Your task to perform on an android device: Clear the shopping cart on amazon.com. Search for "jbl charge 4" on amazon.com, select the first entry, and add it to the cart. Image 0: 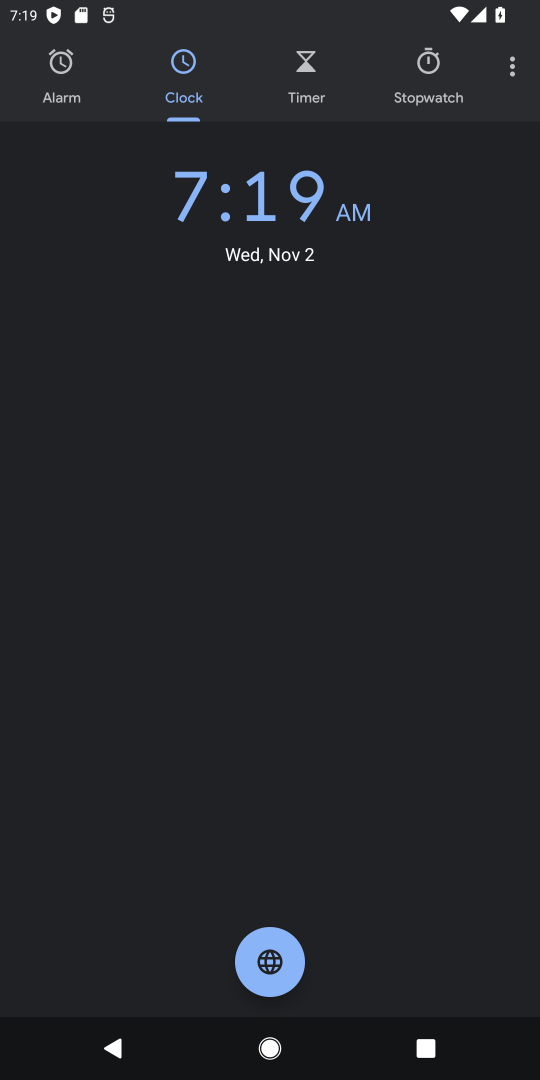
Step 0: press home button
Your task to perform on an android device: Clear the shopping cart on amazon.com. Search for "jbl charge 4" on amazon.com, select the first entry, and add it to the cart. Image 1: 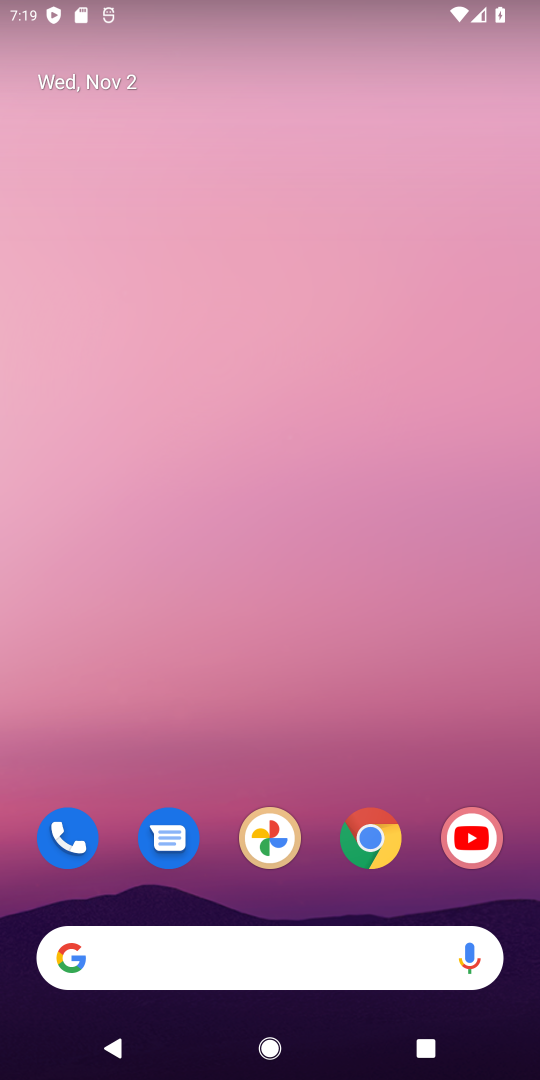
Step 1: click (384, 861)
Your task to perform on an android device: Clear the shopping cart on amazon.com. Search for "jbl charge 4" on amazon.com, select the first entry, and add it to the cart. Image 2: 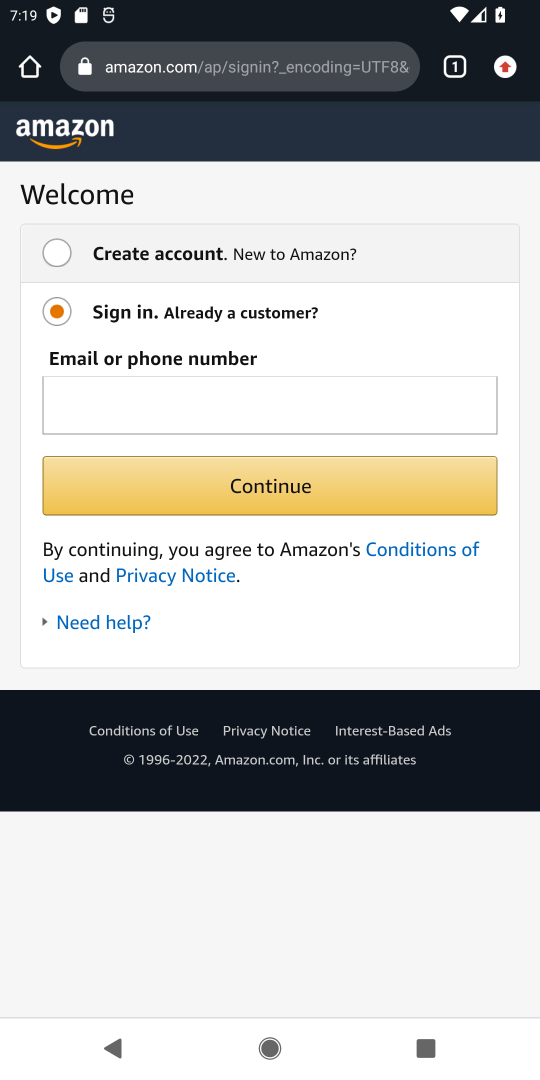
Step 2: click (273, 66)
Your task to perform on an android device: Clear the shopping cart on amazon.com. Search for "jbl charge 4" on amazon.com, select the first entry, and add it to the cart. Image 3: 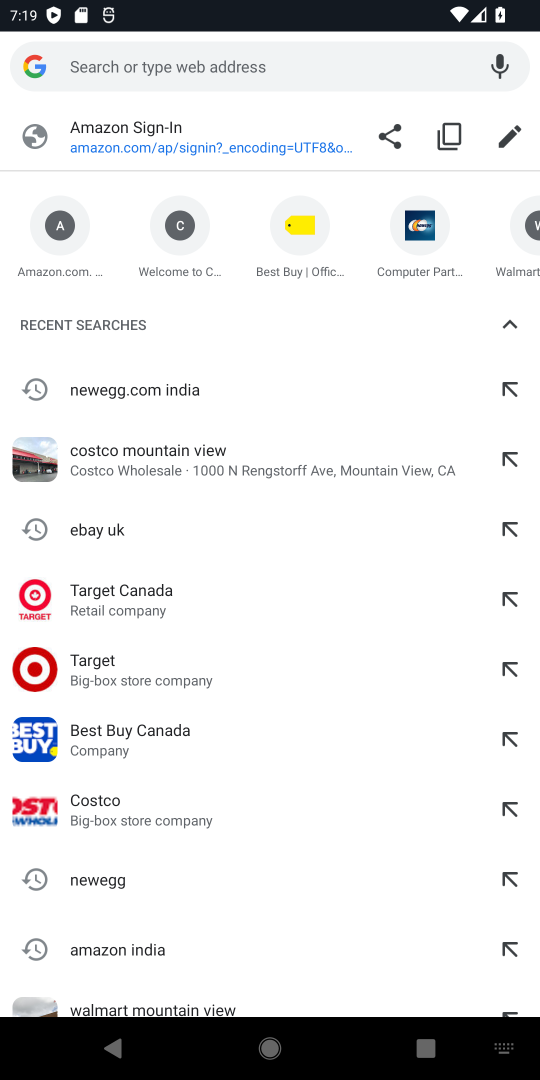
Step 3: type "amazon.com"
Your task to perform on an android device: Clear the shopping cart on amazon.com. Search for "jbl charge 4" on amazon.com, select the first entry, and add it to the cart. Image 4: 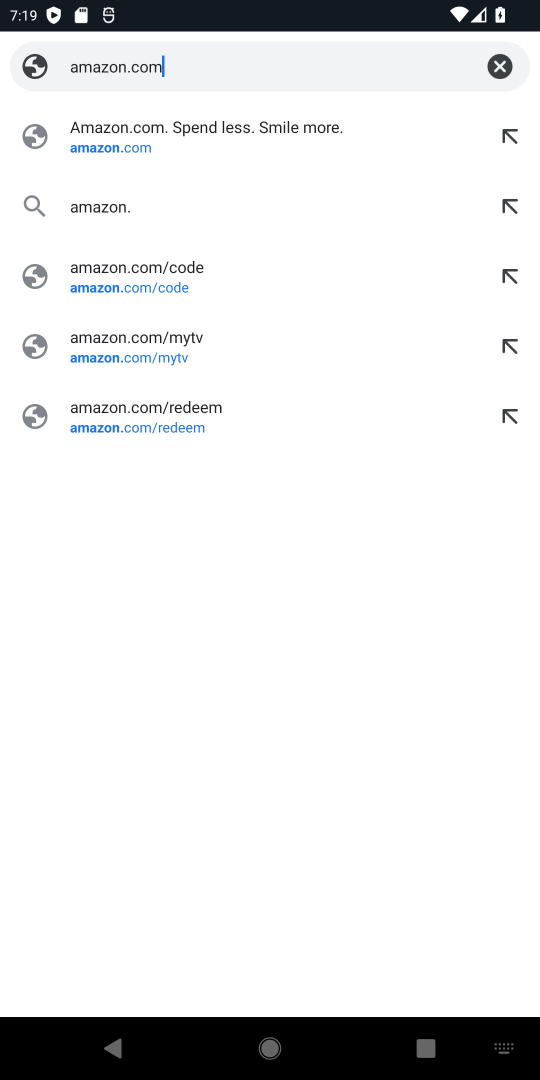
Step 4: type ""
Your task to perform on an android device: Clear the shopping cart on amazon.com. Search for "jbl charge 4" on amazon.com, select the first entry, and add it to the cart. Image 5: 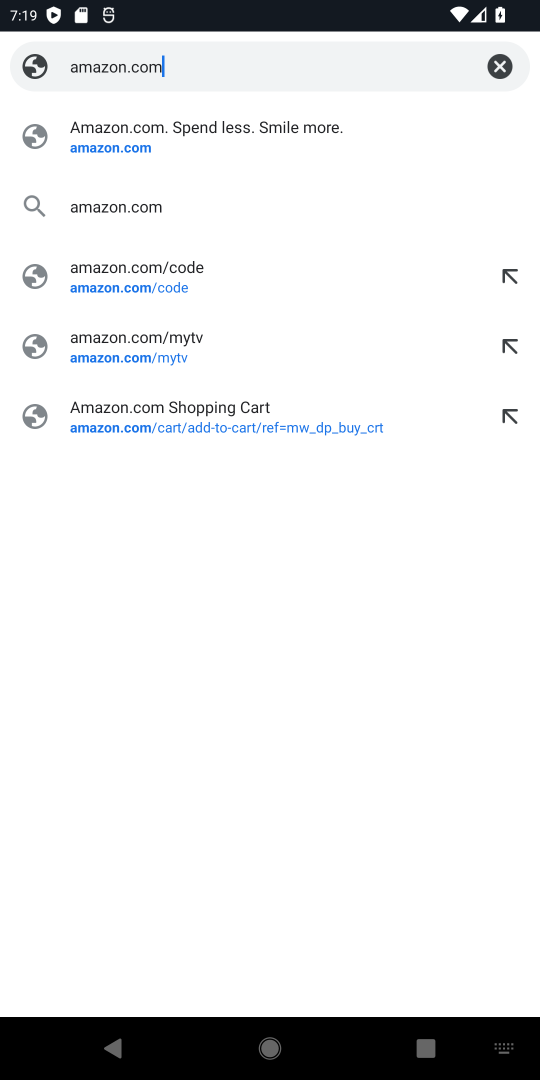
Step 5: press enter
Your task to perform on an android device: Clear the shopping cart on amazon.com. Search for "jbl charge 4" on amazon.com, select the first entry, and add it to the cart. Image 6: 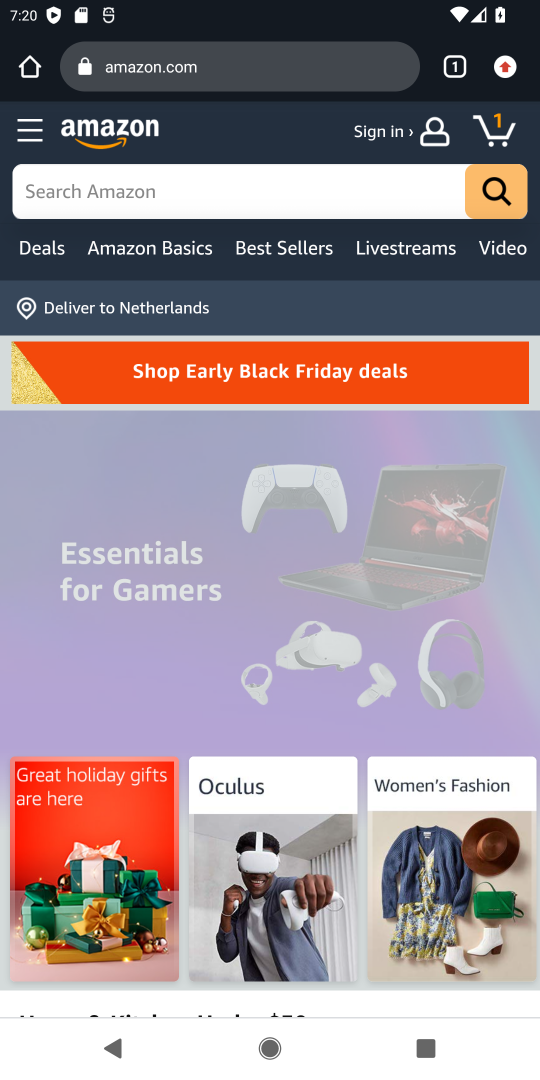
Step 6: click (151, 197)
Your task to perform on an android device: Clear the shopping cart on amazon.com. Search for "jbl charge 4" on amazon.com, select the first entry, and add it to the cart. Image 7: 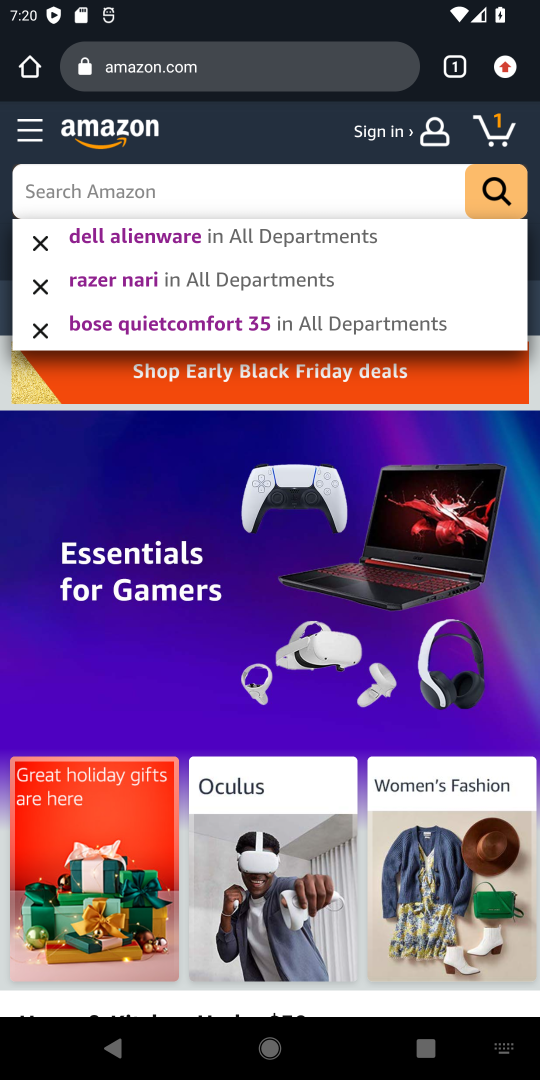
Step 7: click (505, 122)
Your task to perform on an android device: Clear the shopping cart on amazon.com. Search for "jbl charge 4" on amazon.com, select the first entry, and add it to the cart. Image 8: 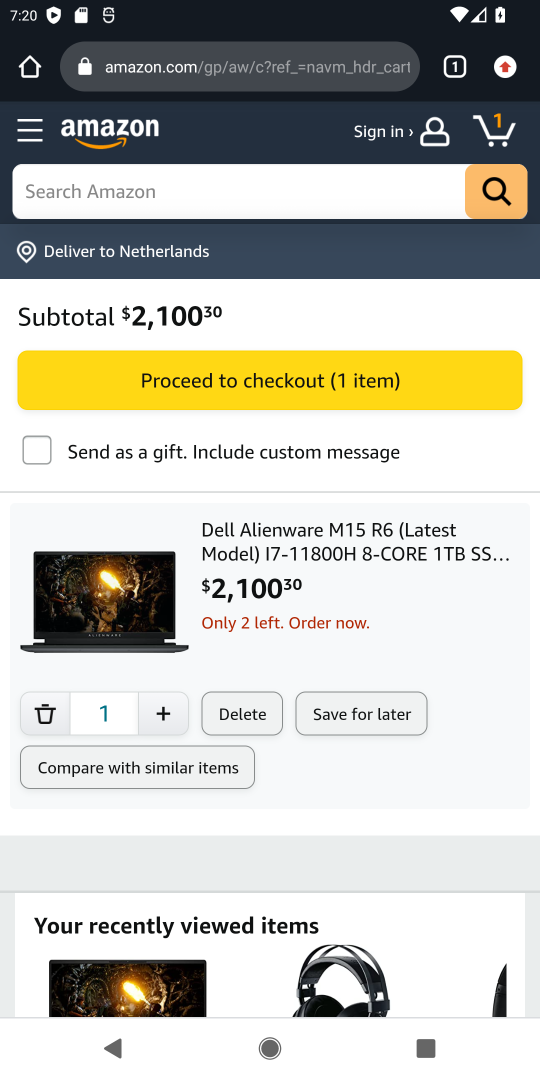
Step 8: click (44, 709)
Your task to perform on an android device: Clear the shopping cart on amazon.com. Search for "jbl charge 4" on amazon.com, select the first entry, and add it to the cart. Image 9: 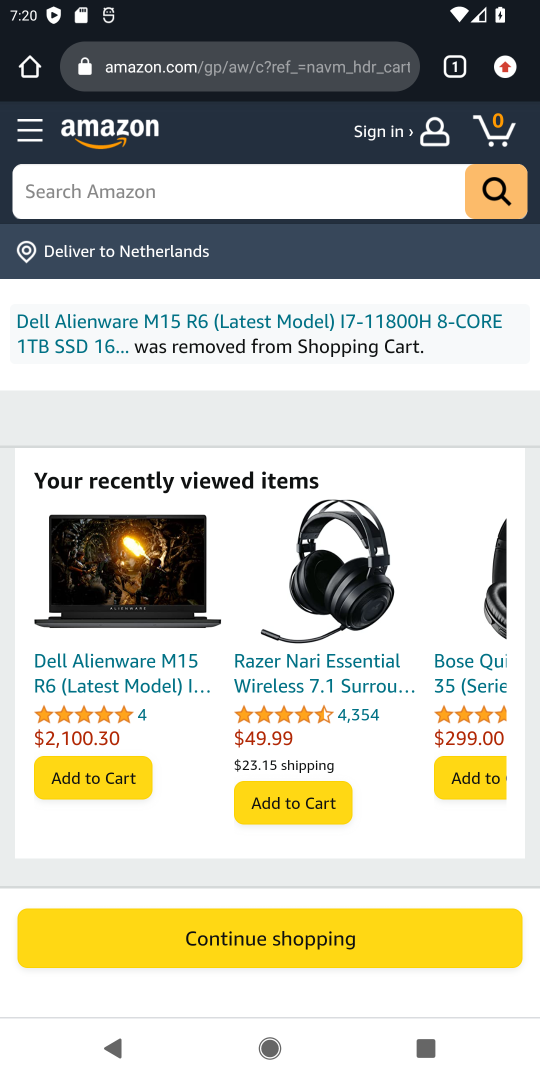
Step 9: click (240, 190)
Your task to perform on an android device: Clear the shopping cart on amazon.com. Search for "jbl charge 4" on amazon.com, select the first entry, and add it to the cart. Image 10: 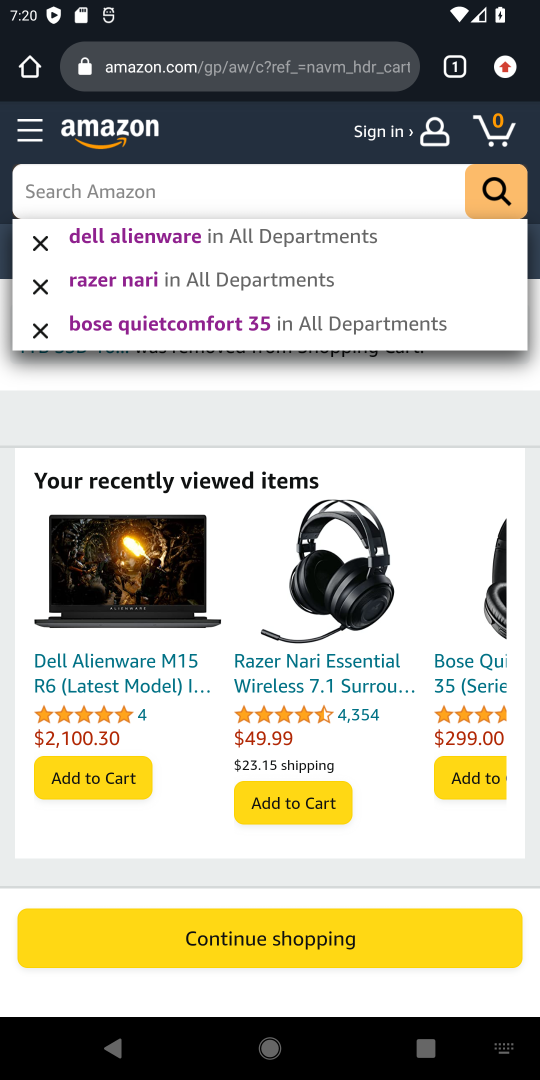
Step 10: type "jbl charge 4"
Your task to perform on an android device: Clear the shopping cart on amazon.com. Search for "jbl charge 4" on amazon.com, select the first entry, and add it to the cart. Image 11: 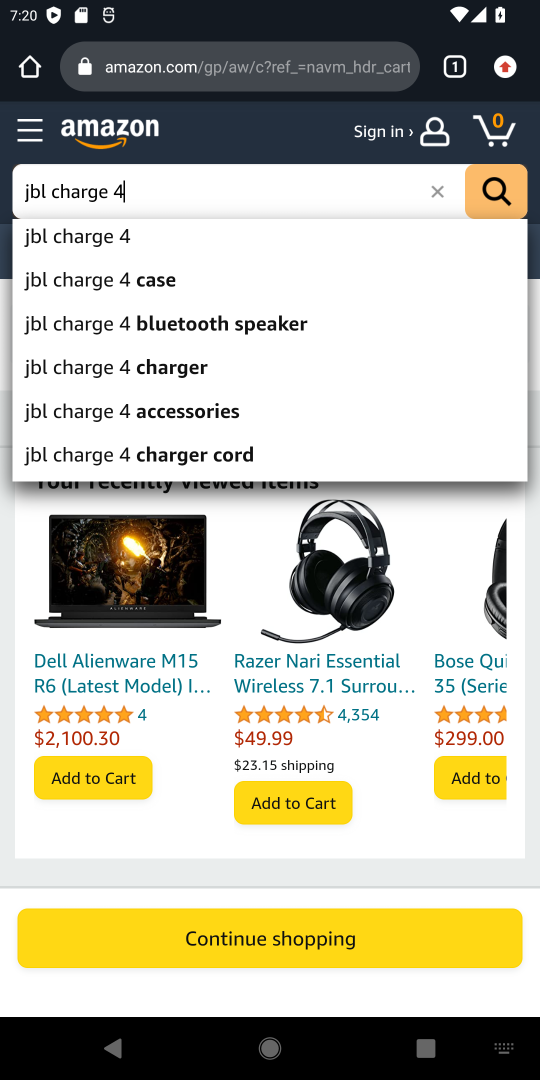
Step 11: press enter
Your task to perform on an android device: Clear the shopping cart on amazon.com. Search for "jbl charge 4" on amazon.com, select the first entry, and add it to the cart. Image 12: 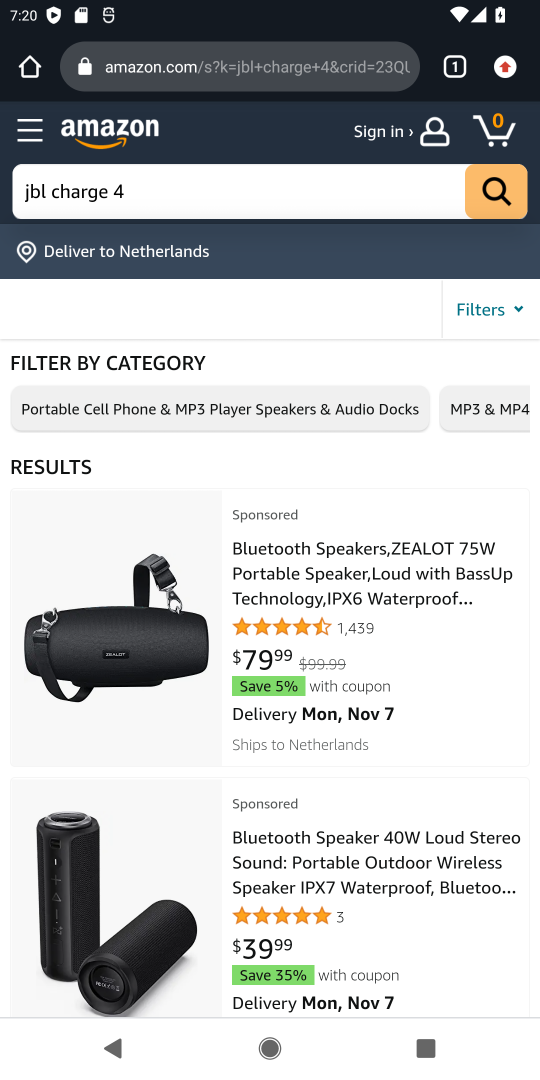
Step 12: drag from (392, 861) to (377, 423)
Your task to perform on an android device: Clear the shopping cart on amazon.com. Search for "jbl charge 4" on amazon.com, select the first entry, and add it to the cart. Image 13: 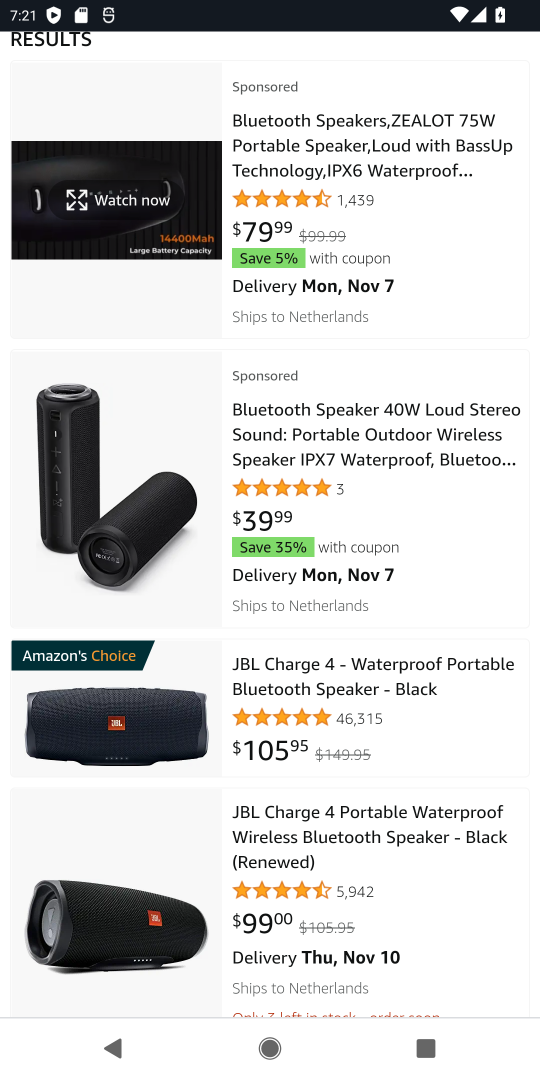
Step 13: click (293, 685)
Your task to perform on an android device: Clear the shopping cart on amazon.com. Search for "jbl charge 4" on amazon.com, select the first entry, and add it to the cart. Image 14: 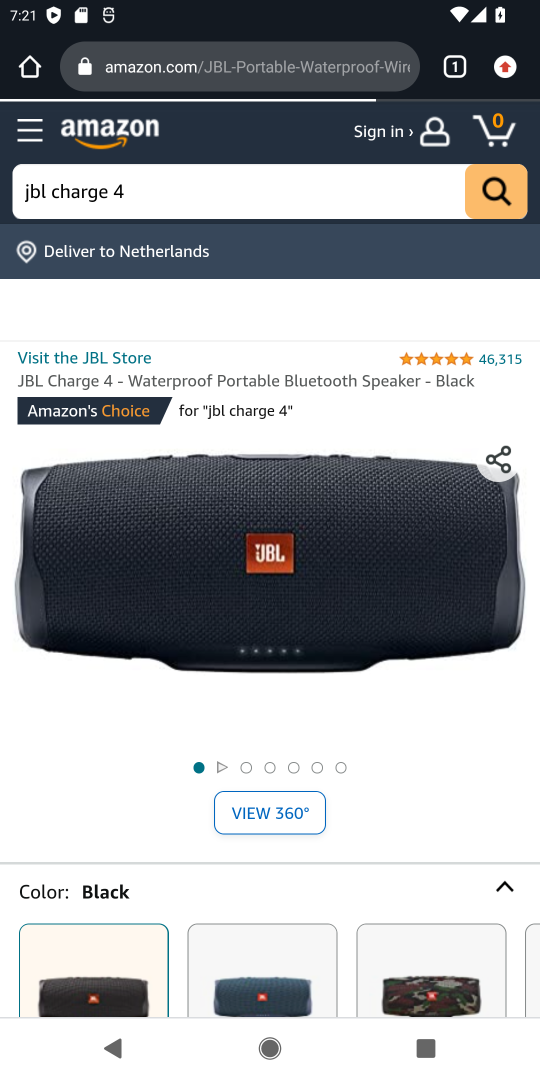
Step 14: task complete